Your task to perform on an android device: open a bookmark in the chrome app Image 0: 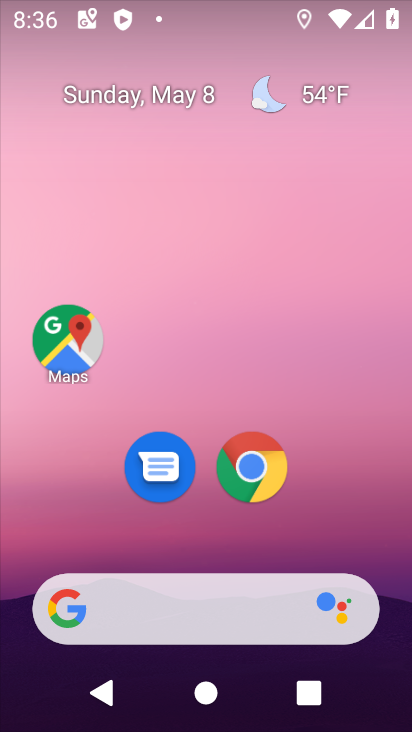
Step 0: click (255, 472)
Your task to perform on an android device: open a bookmark in the chrome app Image 1: 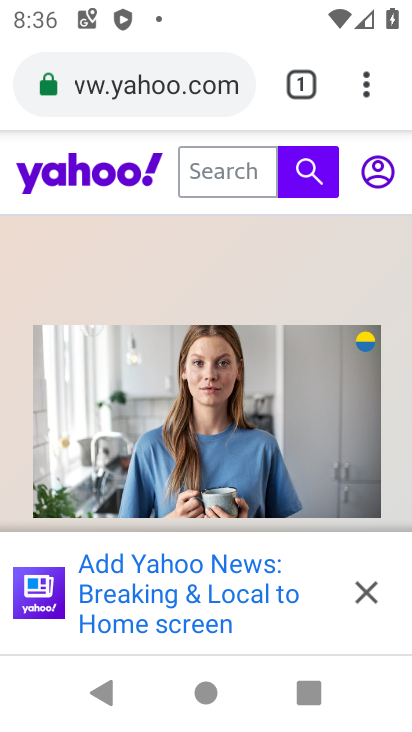
Step 1: click (367, 91)
Your task to perform on an android device: open a bookmark in the chrome app Image 2: 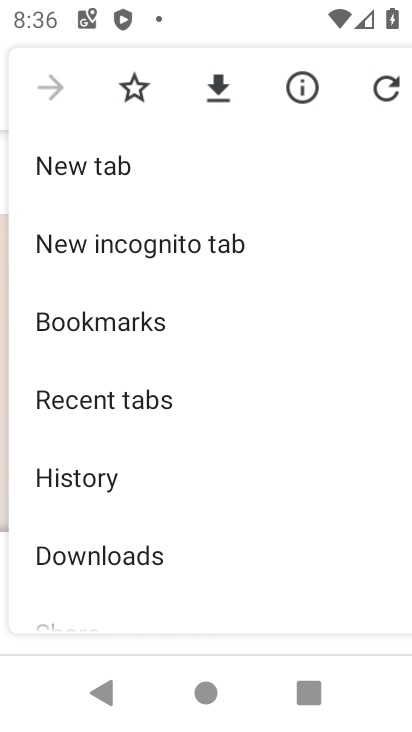
Step 2: click (65, 327)
Your task to perform on an android device: open a bookmark in the chrome app Image 3: 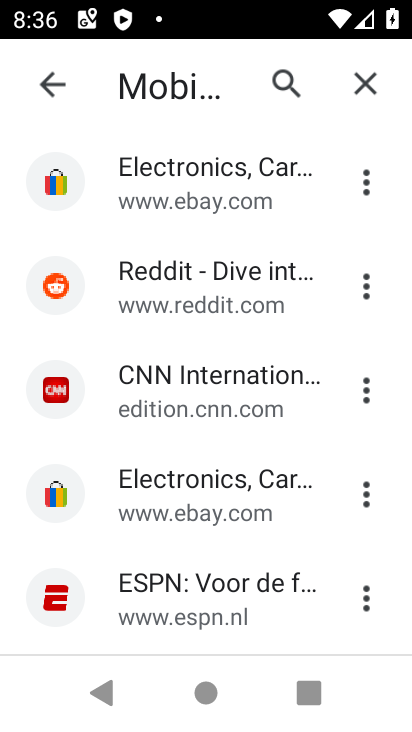
Step 3: drag from (204, 589) to (274, 302)
Your task to perform on an android device: open a bookmark in the chrome app Image 4: 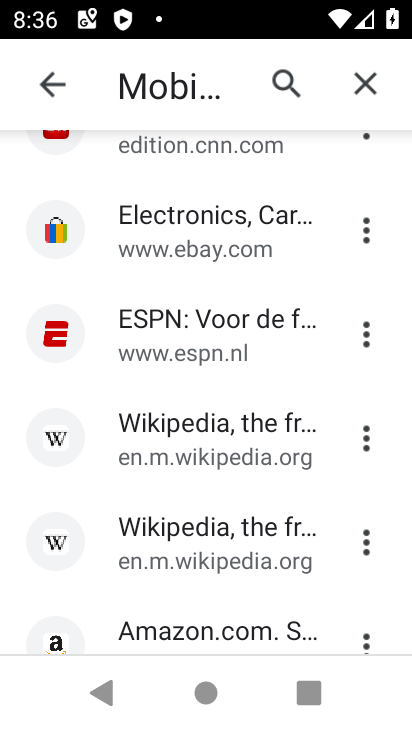
Step 4: drag from (229, 595) to (327, 222)
Your task to perform on an android device: open a bookmark in the chrome app Image 5: 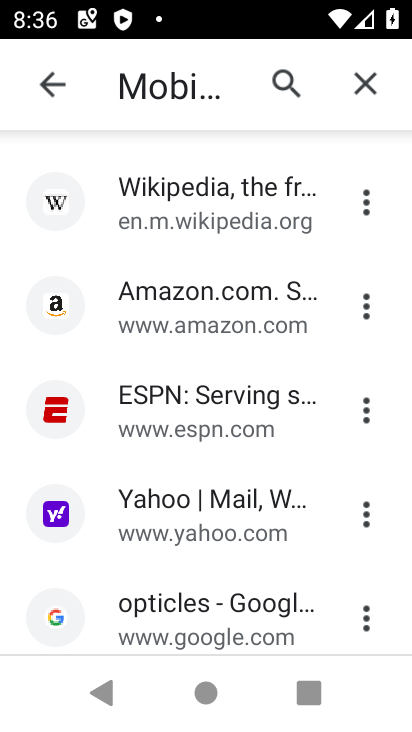
Step 5: drag from (281, 562) to (304, 195)
Your task to perform on an android device: open a bookmark in the chrome app Image 6: 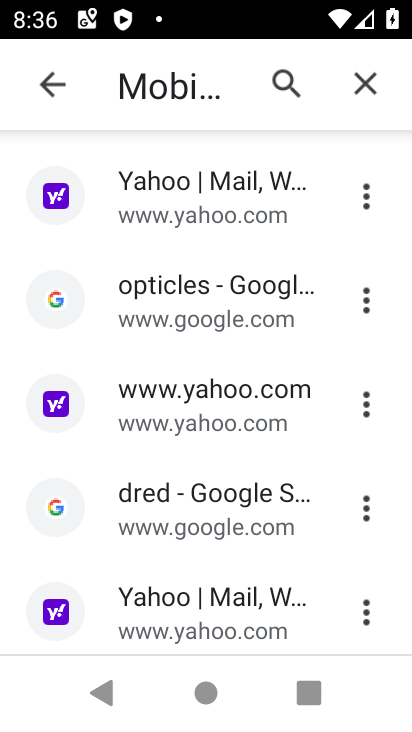
Step 6: drag from (285, 474) to (294, 242)
Your task to perform on an android device: open a bookmark in the chrome app Image 7: 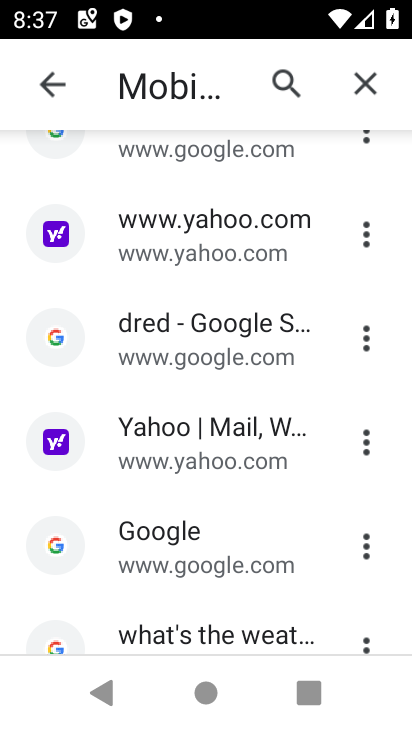
Step 7: drag from (275, 573) to (304, 186)
Your task to perform on an android device: open a bookmark in the chrome app Image 8: 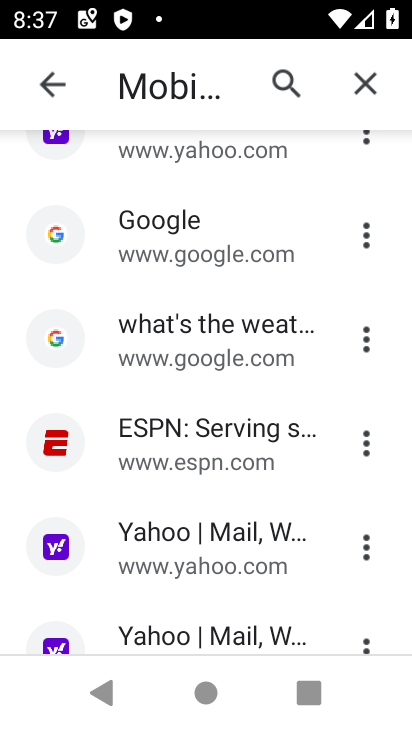
Step 8: drag from (300, 587) to (300, 172)
Your task to perform on an android device: open a bookmark in the chrome app Image 9: 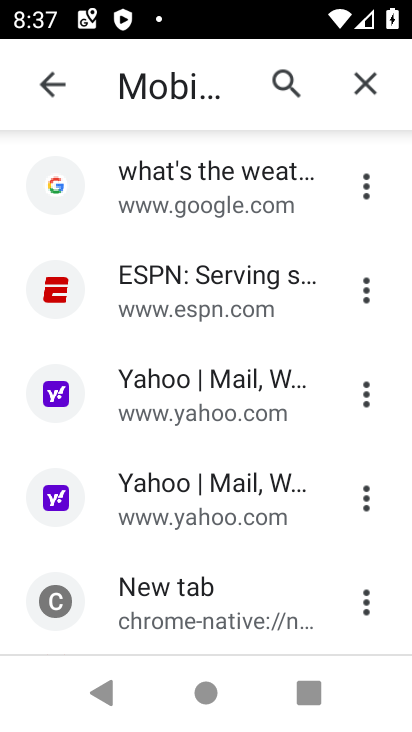
Step 9: click (160, 283)
Your task to perform on an android device: open a bookmark in the chrome app Image 10: 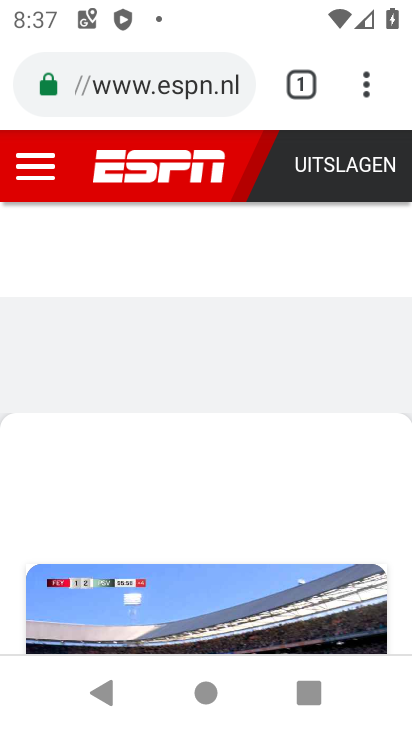
Step 10: task complete